Your task to perform on an android device: delete the emails in spam in the gmail app Image 0: 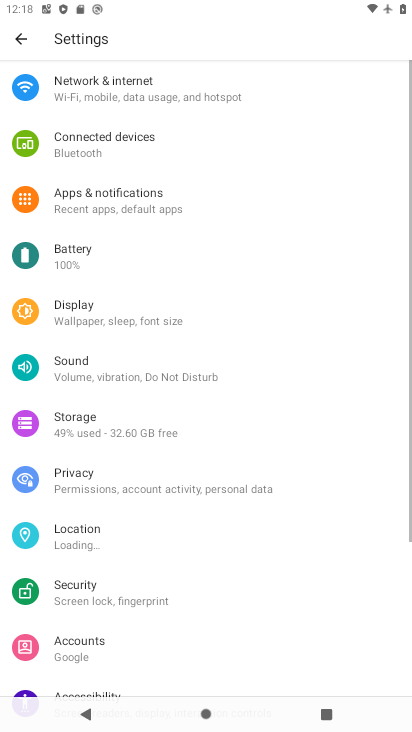
Step 0: press home button
Your task to perform on an android device: delete the emails in spam in the gmail app Image 1: 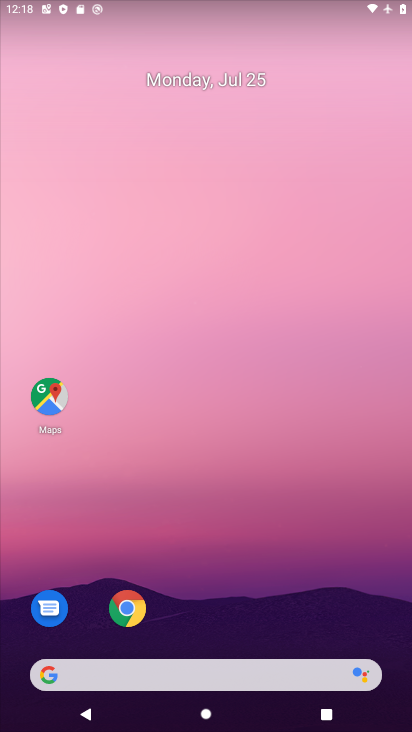
Step 1: drag from (244, 634) to (249, 201)
Your task to perform on an android device: delete the emails in spam in the gmail app Image 2: 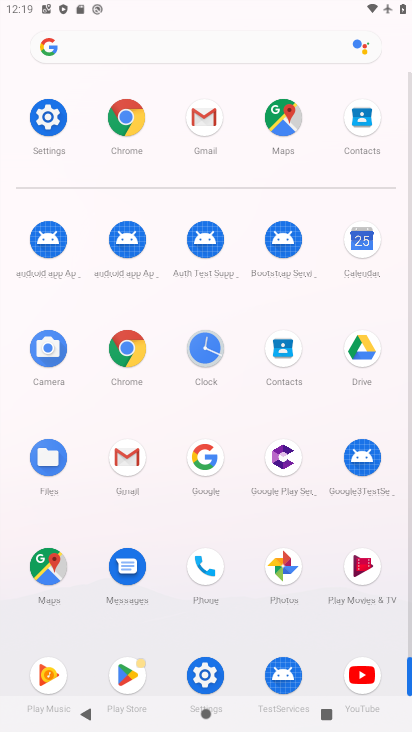
Step 2: click (124, 468)
Your task to perform on an android device: delete the emails in spam in the gmail app Image 3: 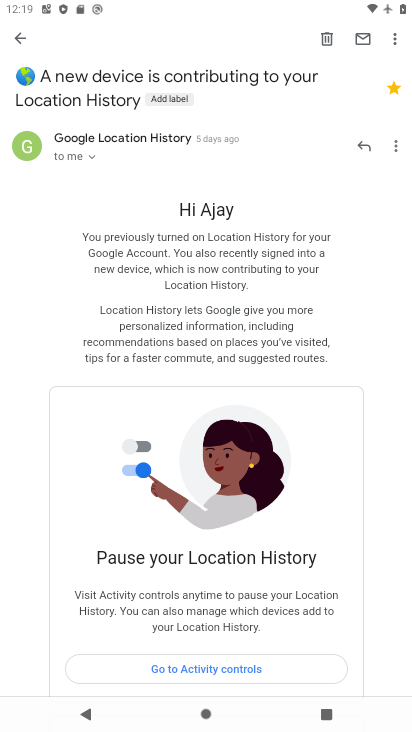
Step 3: click (10, 36)
Your task to perform on an android device: delete the emails in spam in the gmail app Image 4: 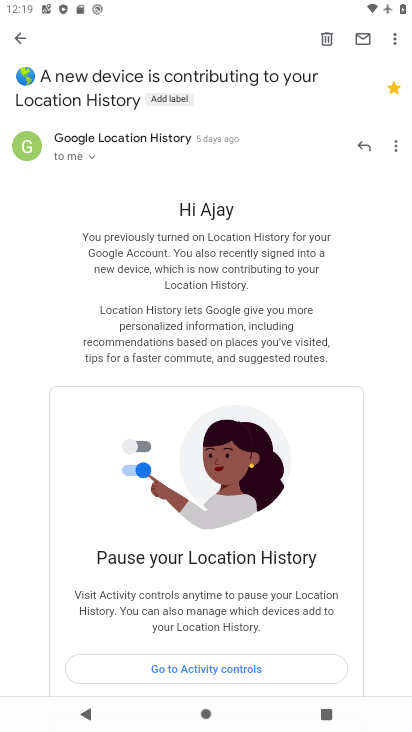
Step 4: click (19, 40)
Your task to perform on an android device: delete the emails in spam in the gmail app Image 5: 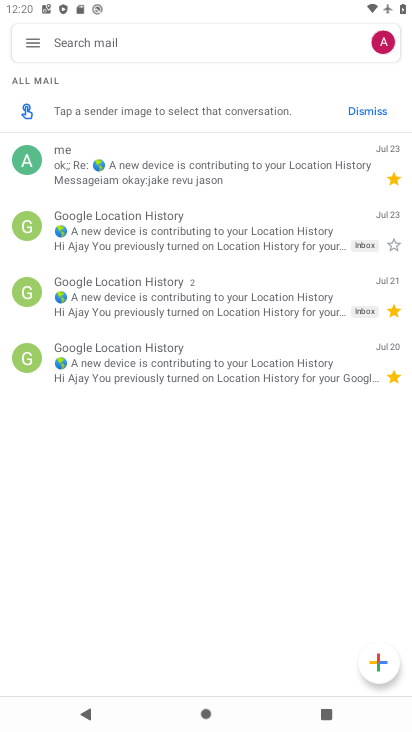
Step 5: drag from (200, 309) to (146, 531)
Your task to perform on an android device: delete the emails in spam in the gmail app Image 6: 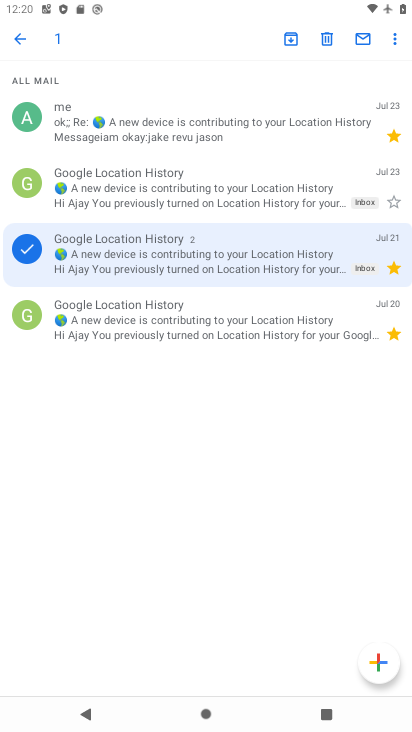
Step 6: click (15, 34)
Your task to perform on an android device: delete the emails in spam in the gmail app Image 7: 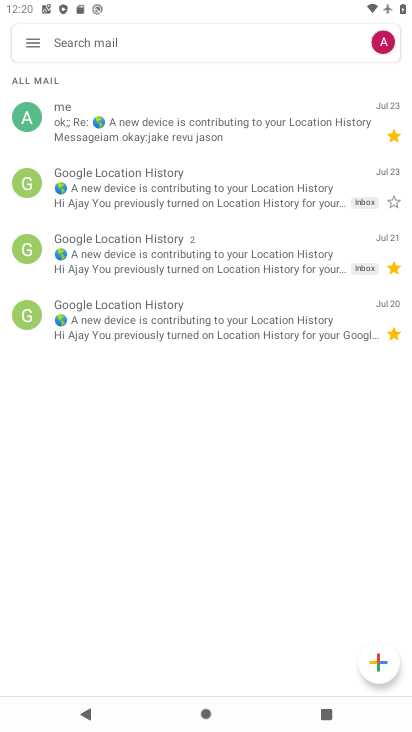
Step 7: click (28, 43)
Your task to perform on an android device: delete the emails in spam in the gmail app Image 8: 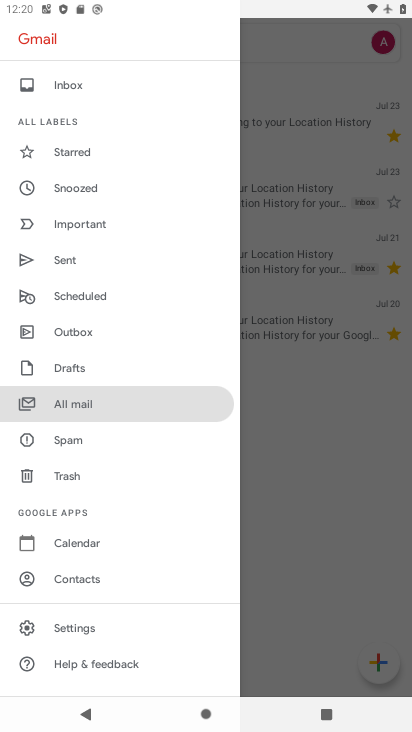
Step 8: click (89, 444)
Your task to perform on an android device: delete the emails in spam in the gmail app Image 9: 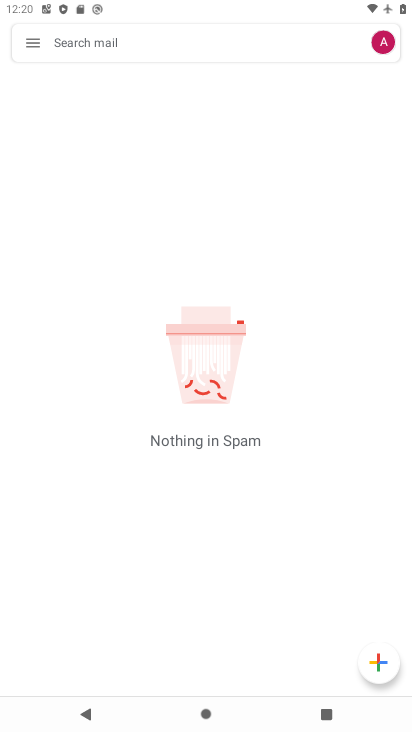
Step 9: task complete